Your task to perform on an android device: see tabs open on other devices in the chrome app Image 0: 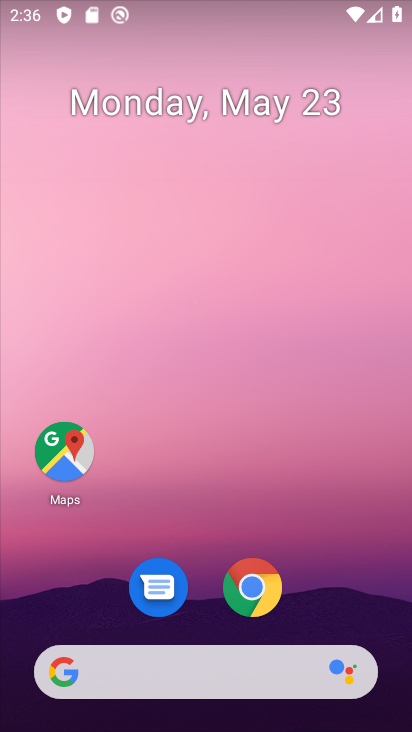
Step 0: click (248, 592)
Your task to perform on an android device: see tabs open on other devices in the chrome app Image 1: 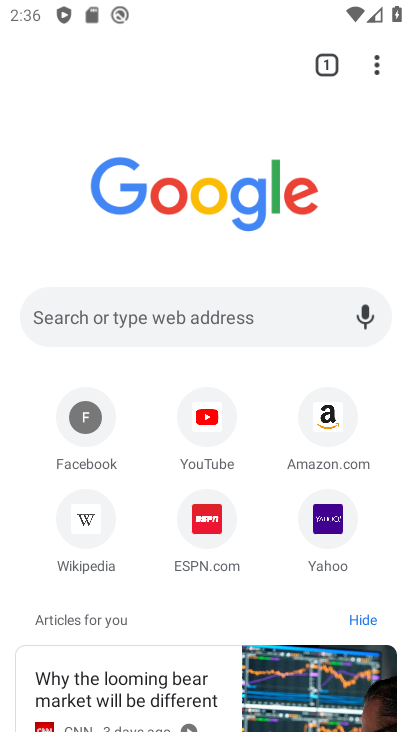
Step 1: click (319, 74)
Your task to perform on an android device: see tabs open on other devices in the chrome app Image 2: 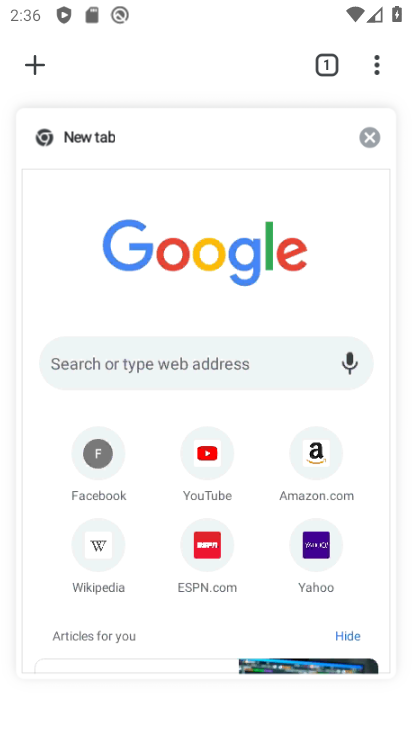
Step 2: task complete